Your task to perform on an android device: What's the weather going to be tomorrow? Image 0: 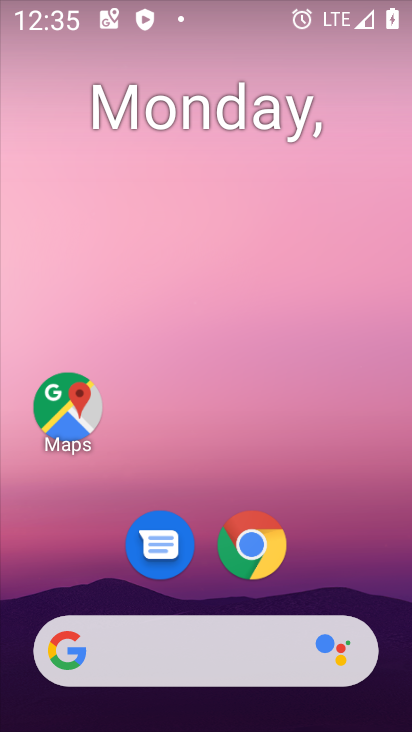
Step 0: click (245, 642)
Your task to perform on an android device: What's the weather going to be tomorrow? Image 1: 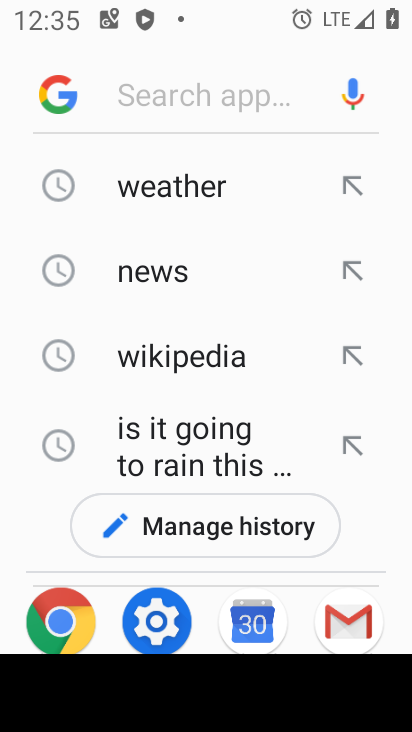
Step 1: click (249, 210)
Your task to perform on an android device: What's the weather going to be tomorrow? Image 2: 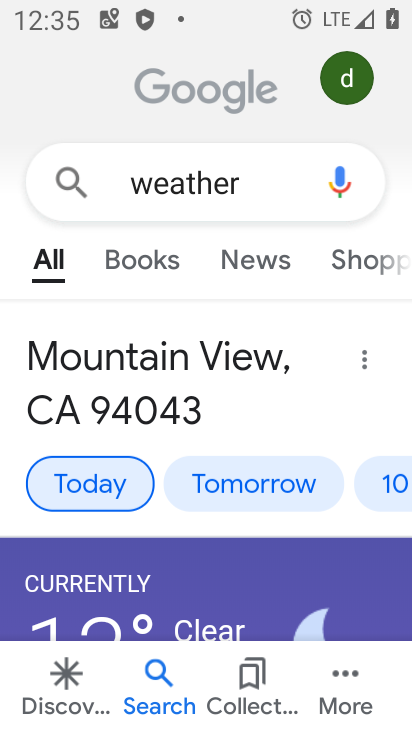
Step 2: click (289, 500)
Your task to perform on an android device: What's the weather going to be tomorrow? Image 3: 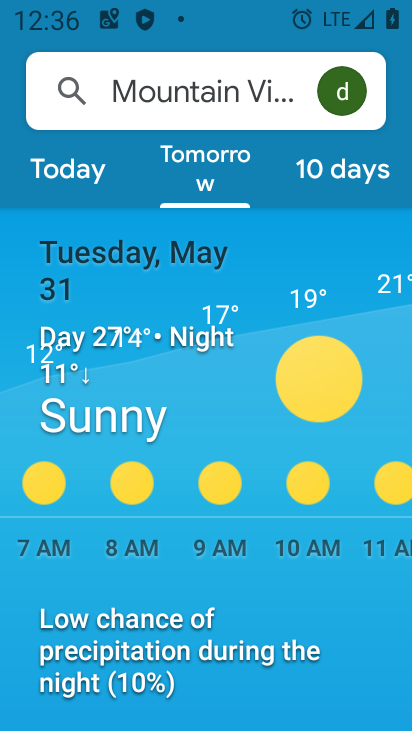
Step 3: task complete